Your task to perform on an android device: turn on data saver in the chrome app Image 0: 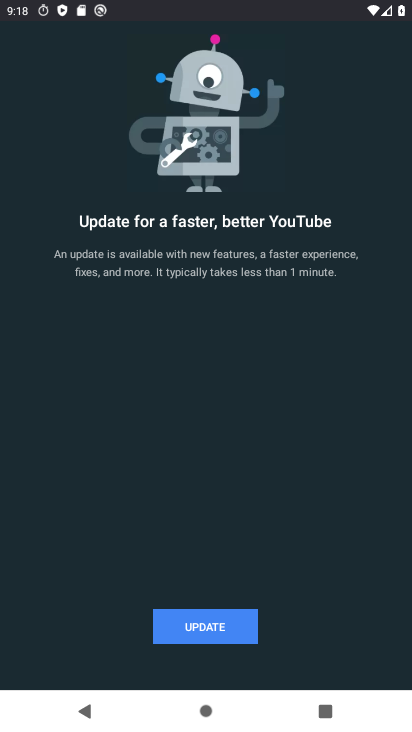
Step 0: click (143, 582)
Your task to perform on an android device: turn on data saver in the chrome app Image 1: 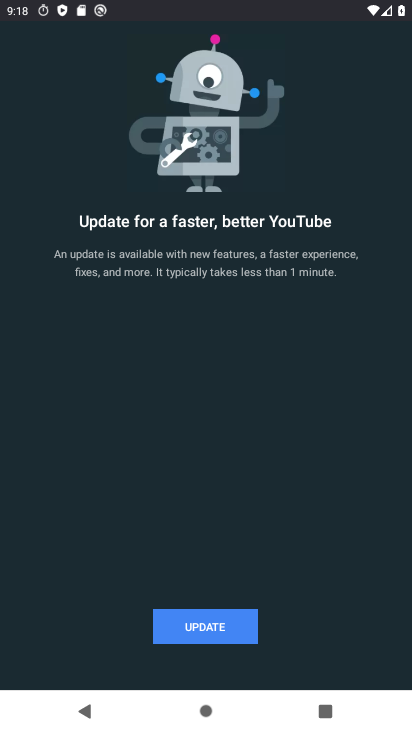
Step 1: press home button
Your task to perform on an android device: turn on data saver in the chrome app Image 2: 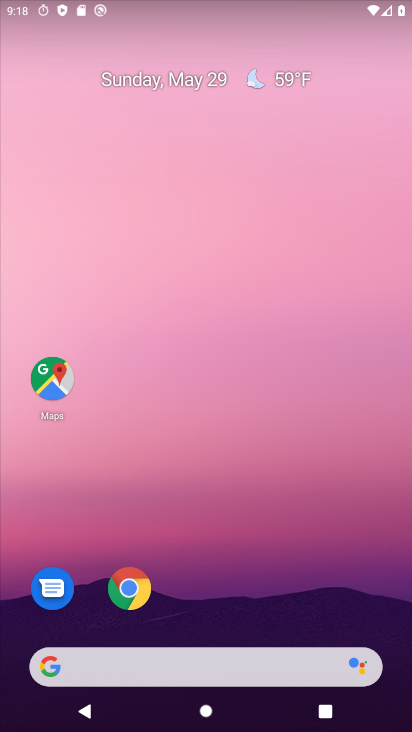
Step 2: click (150, 584)
Your task to perform on an android device: turn on data saver in the chrome app Image 3: 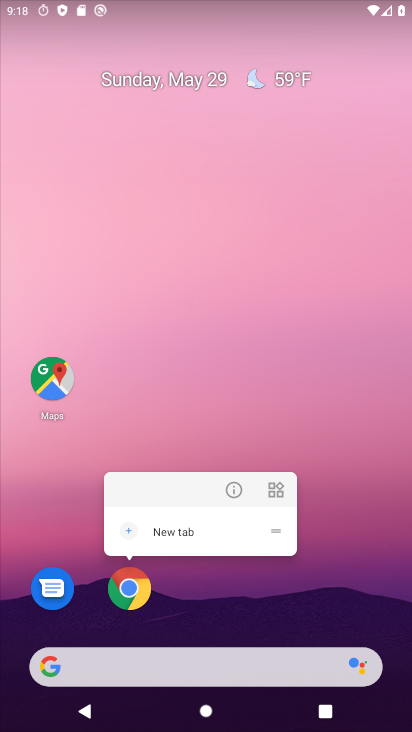
Step 3: click (129, 593)
Your task to perform on an android device: turn on data saver in the chrome app Image 4: 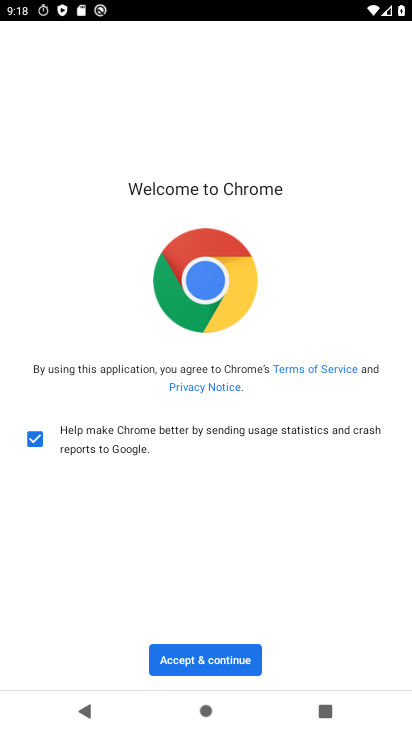
Step 4: click (210, 665)
Your task to perform on an android device: turn on data saver in the chrome app Image 5: 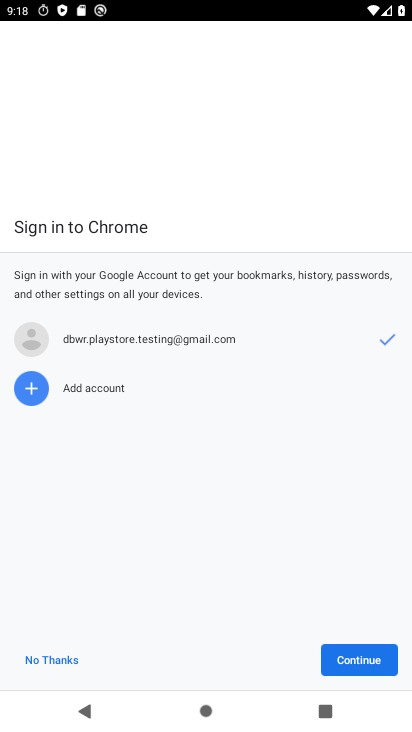
Step 5: click (362, 659)
Your task to perform on an android device: turn on data saver in the chrome app Image 6: 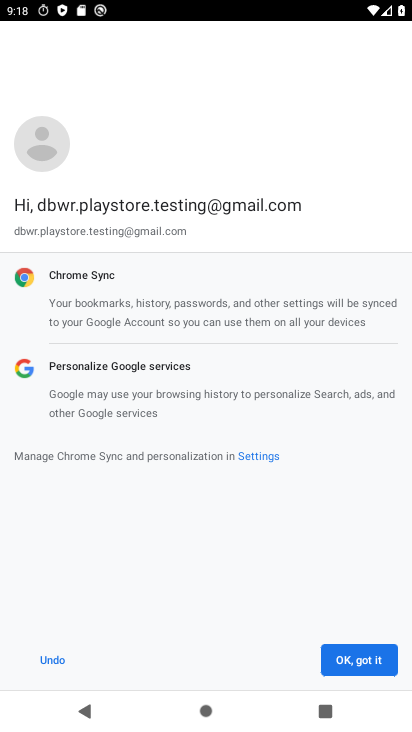
Step 6: click (363, 657)
Your task to perform on an android device: turn on data saver in the chrome app Image 7: 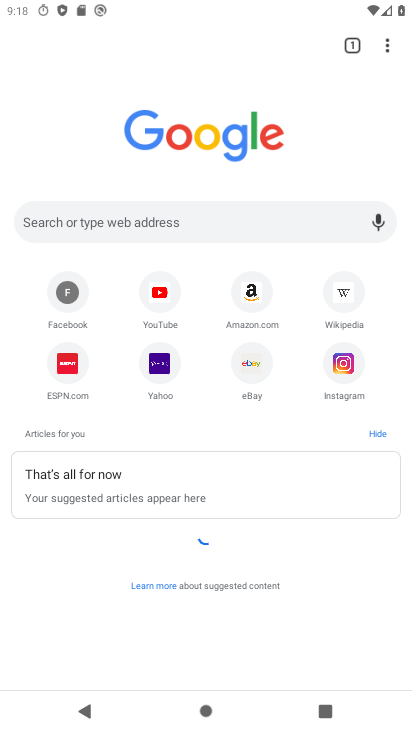
Step 7: click (390, 53)
Your task to perform on an android device: turn on data saver in the chrome app Image 8: 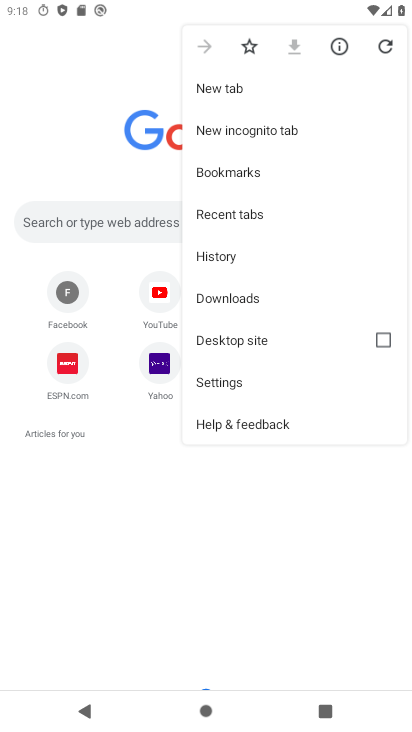
Step 8: click (219, 387)
Your task to perform on an android device: turn on data saver in the chrome app Image 9: 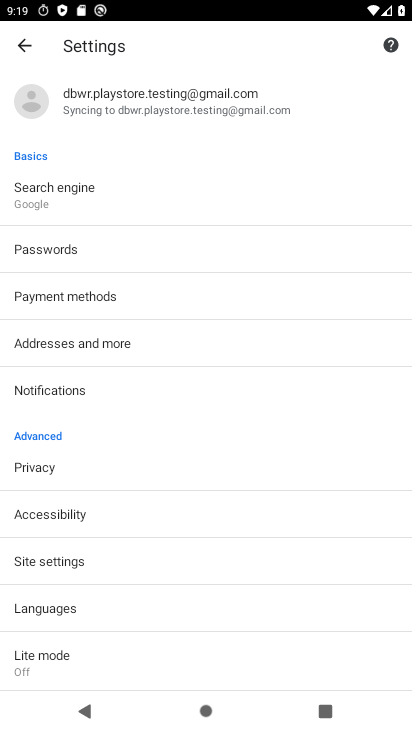
Step 9: click (80, 657)
Your task to perform on an android device: turn on data saver in the chrome app Image 10: 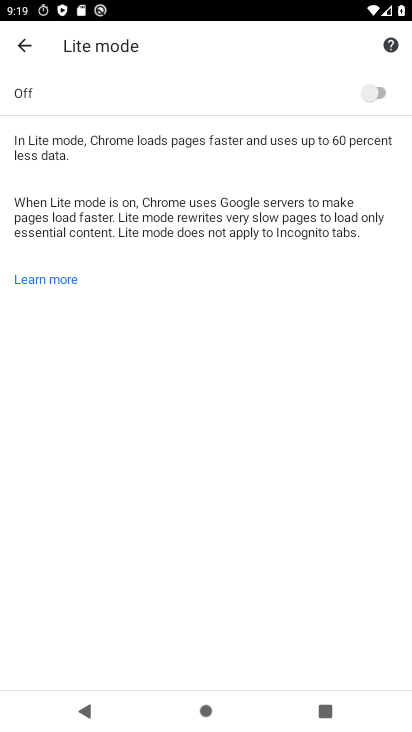
Step 10: click (395, 93)
Your task to perform on an android device: turn on data saver in the chrome app Image 11: 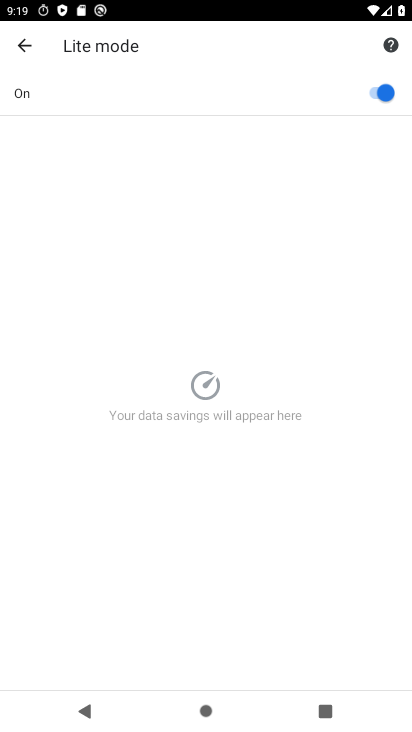
Step 11: task complete